Your task to perform on an android device: Open calendar and show me the fourth week of next month Image 0: 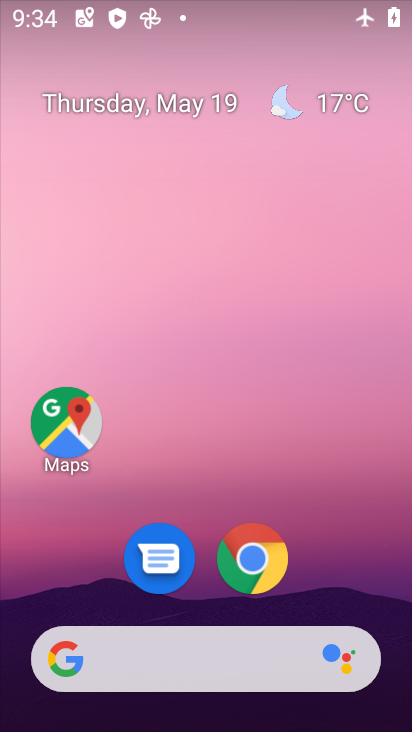
Step 0: drag from (199, 710) to (177, 254)
Your task to perform on an android device: Open calendar and show me the fourth week of next month Image 1: 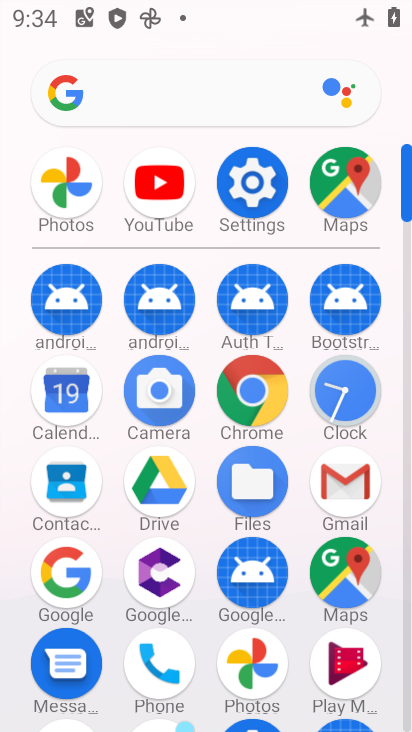
Step 1: click (71, 395)
Your task to perform on an android device: Open calendar and show me the fourth week of next month Image 2: 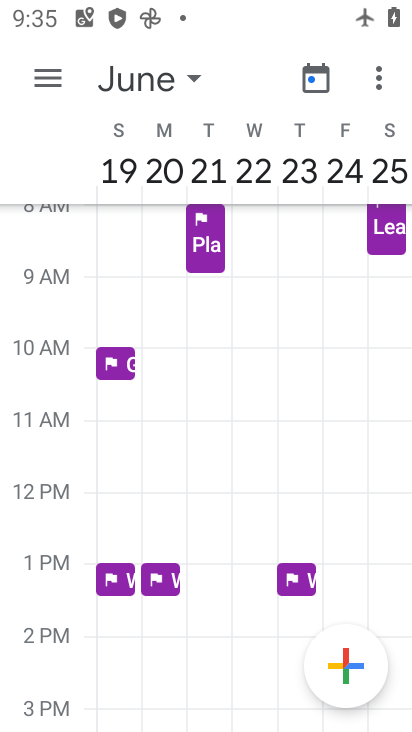
Step 2: click (193, 76)
Your task to perform on an android device: Open calendar and show me the fourth week of next month Image 3: 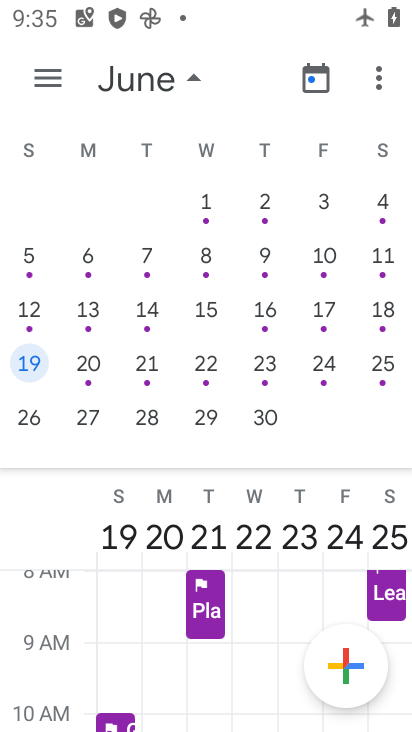
Step 3: click (86, 414)
Your task to perform on an android device: Open calendar and show me the fourth week of next month Image 4: 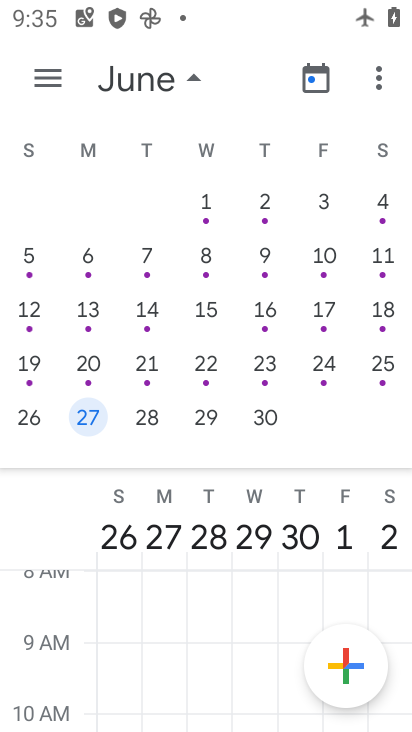
Step 4: click (86, 411)
Your task to perform on an android device: Open calendar and show me the fourth week of next month Image 5: 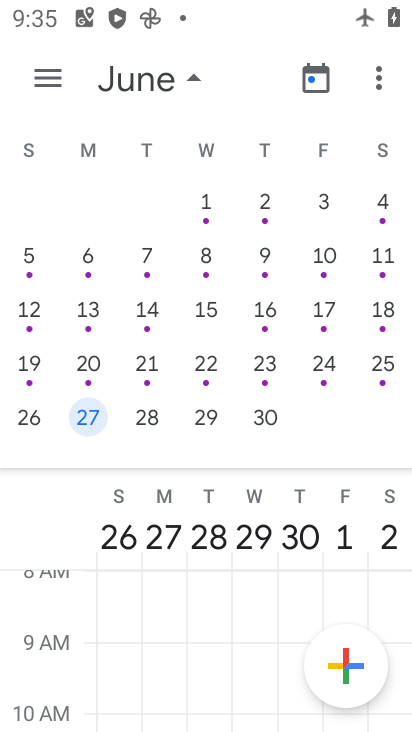
Step 5: click (190, 75)
Your task to perform on an android device: Open calendar and show me the fourth week of next month Image 6: 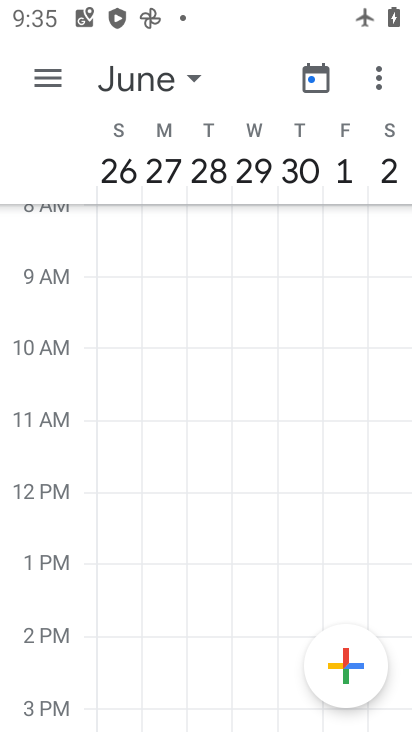
Step 6: task complete